Your task to perform on an android device: check storage Image 0: 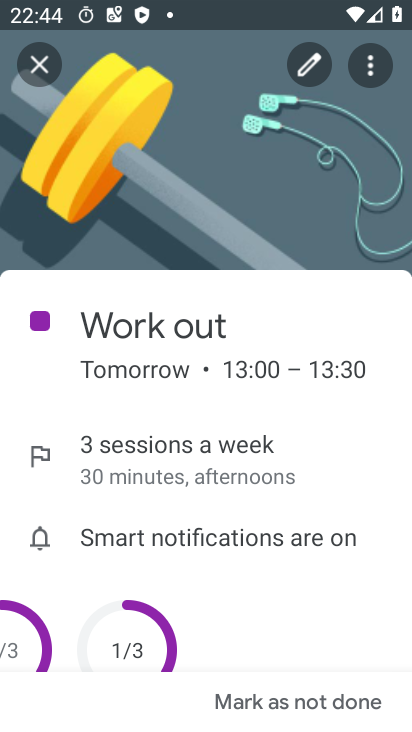
Step 0: press home button
Your task to perform on an android device: check storage Image 1: 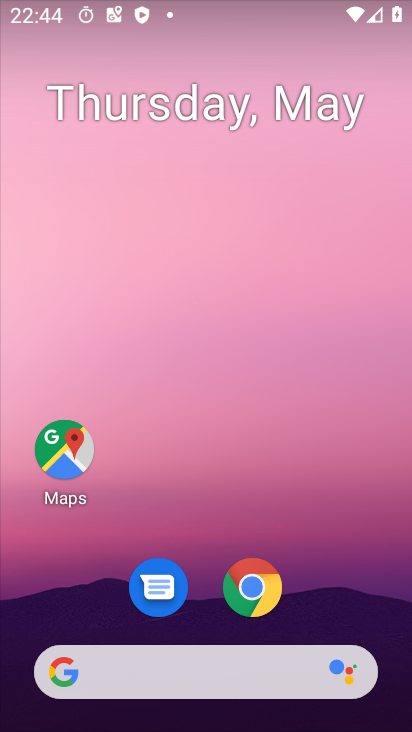
Step 1: drag from (347, 609) to (283, 26)
Your task to perform on an android device: check storage Image 2: 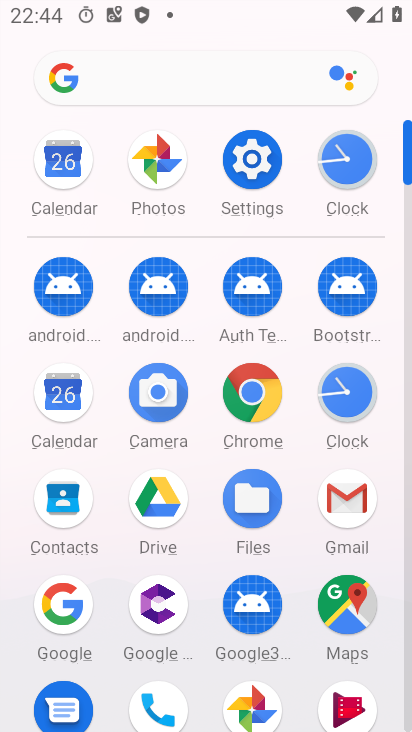
Step 2: click (244, 159)
Your task to perform on an android device: check storage Image 3: 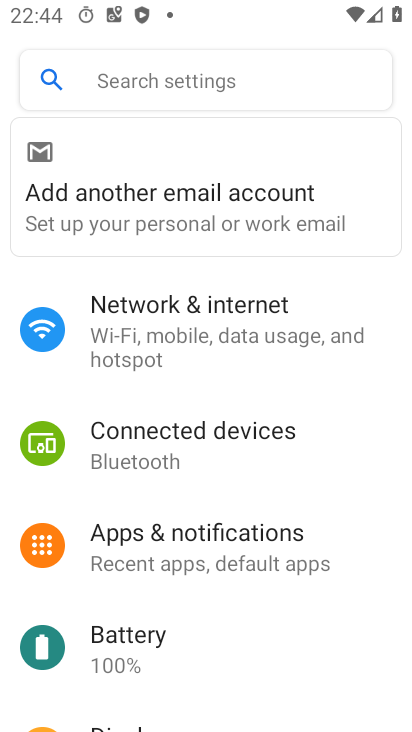
Step 3: drag from (252, 572) to (251, 39)
Your task to perform on an android device: check storage Image 4: 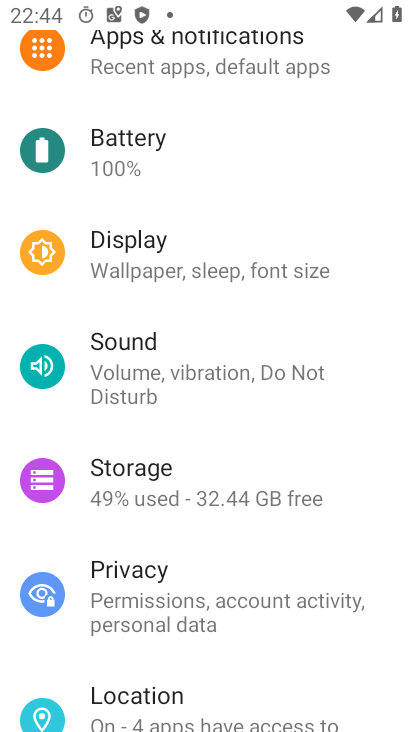
Step 4: click (152, 492)
Your task to perform on an android device: check storage Image 5: 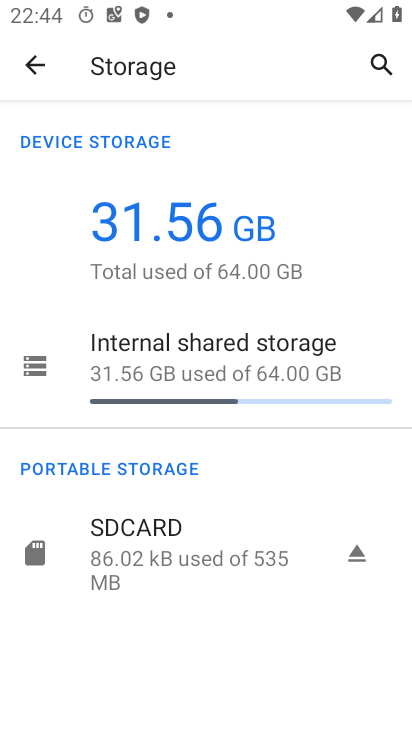
Step 5: click (223, 349)
Your task to perform on an android device: check storage Image 6: 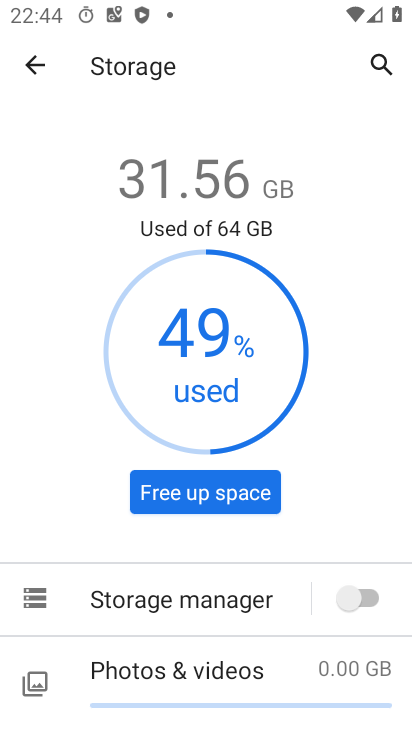
Step 6: task complete